Your task to perform on an android device: open the mobile data screen to see how much data has been used Image 0: 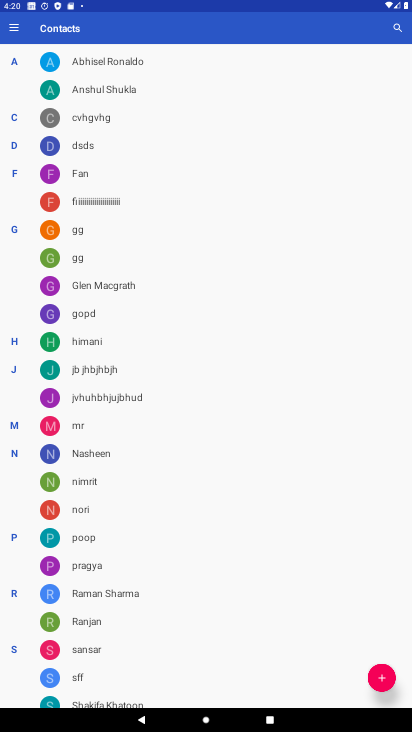
Step 0: press home button
Your task to perform on an android device: open the mobile data screen to see how much data has been used Image 1: 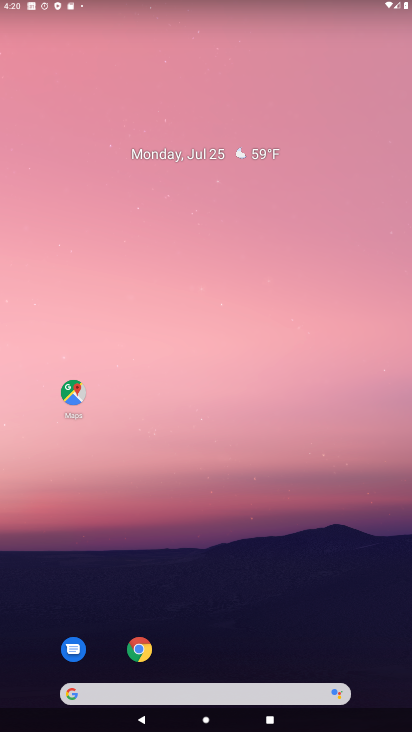
Step 1: drag from (243, 616) to (136, 65)
Your task to perform on an android device: open the mobile data screen to see how much data has been used Image 2: 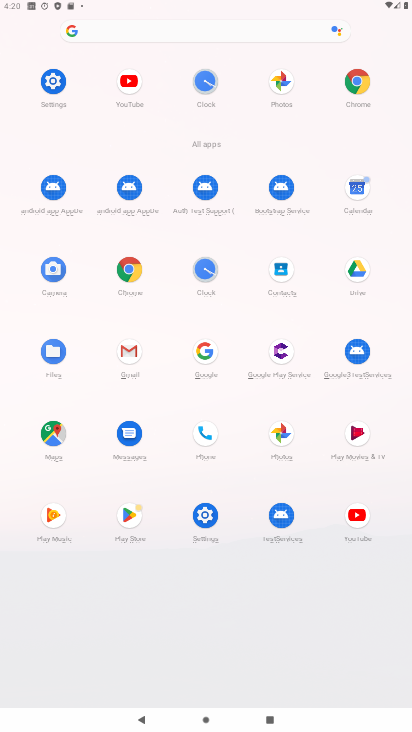
Step 2: click (52, 84)
Your task to perform on an android device: open the mobile data screen to see how much data has been used Image 3: 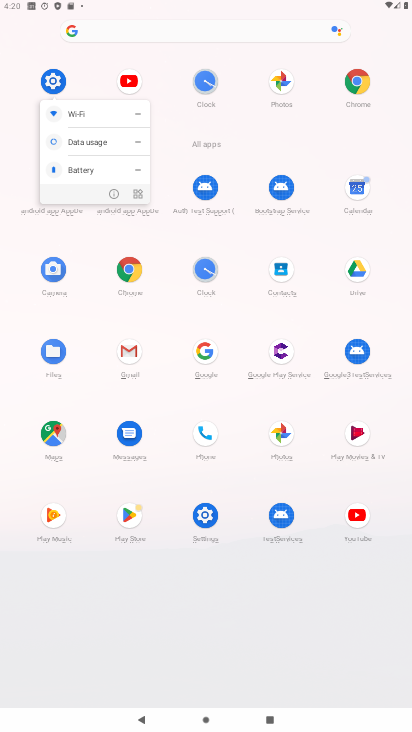
Step 3: click (48, 85)
Your task to perform on an android device: open the mobile data screen to see how much data has been used Image 4: 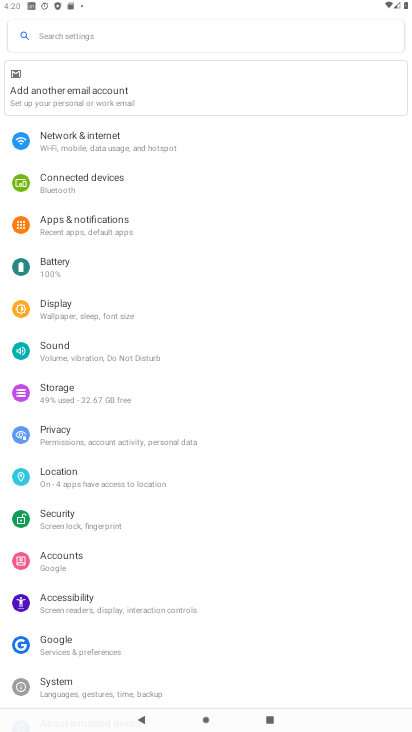
Step 4: click (151, 151)
Your task to perform on an android device: open the mobile data screen to see how much data has been used Image 5: 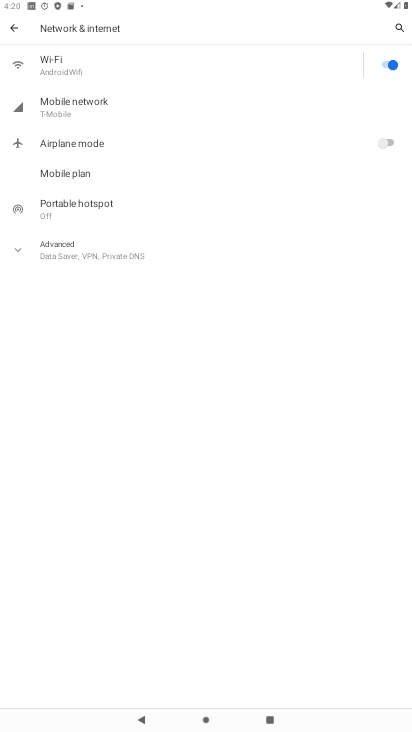
Step 5: click (162, 107)
Your task to perform on an android device: open the mobile data screen to see how much data has been used Image 6: 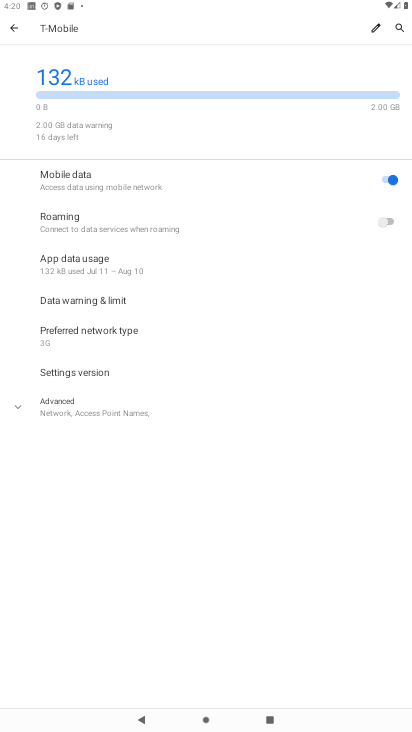
Step 6: task complete